Your task to perform on an android device: What's the weather today? Image 0: 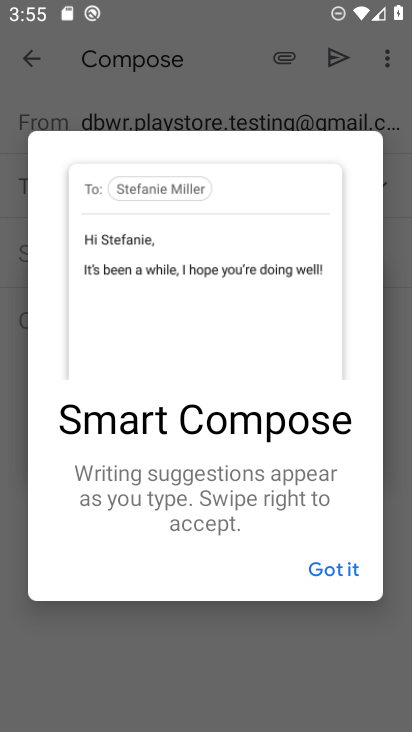
Step 0: press back button
Your task to perform on an android device: What's the weather today? Image 1: 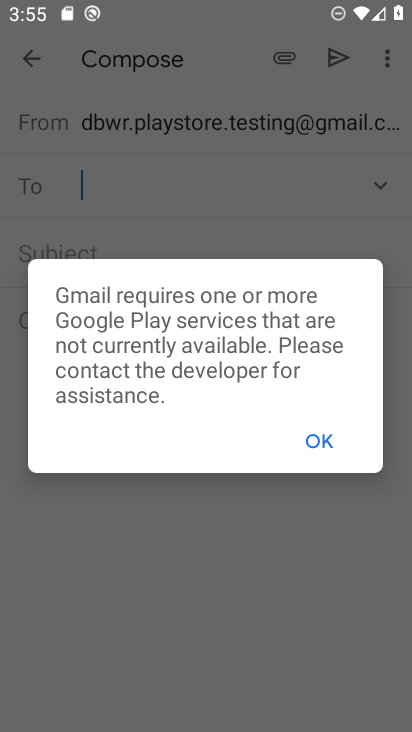
Step 1: press home button
Your task to perform on an android device: What's the weather today? Image 2: 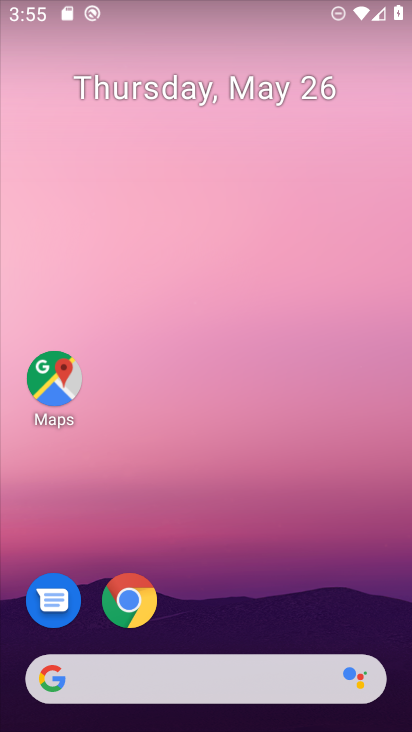
Step 2: drag from (269, 581) to (191, 85)
Your task to perform on an android device: What's the weather today? Image 3: 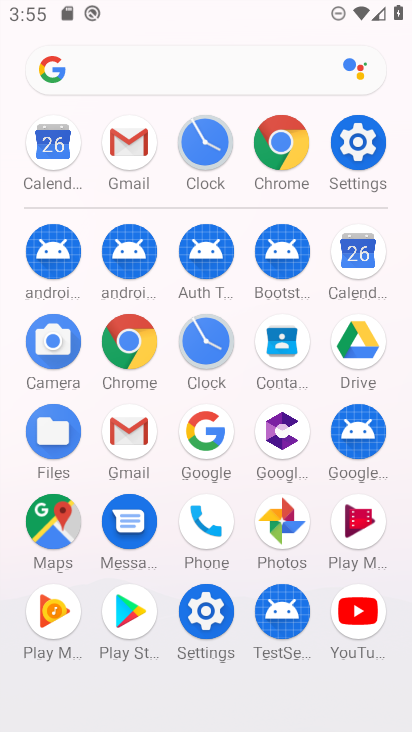
Step 3: click (359, 141)
Your task to perform on an android device: What's the weather today? Image 4: 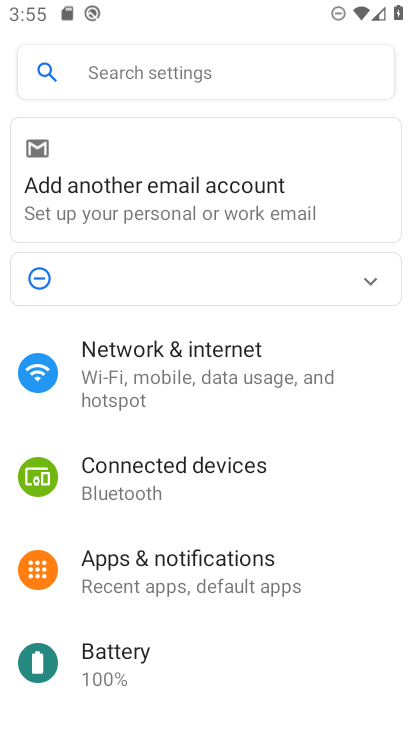
Step 4: drag from (256, 616) to (256, 230)
Your task to perform on an android device: What's the weather today? Image 5: 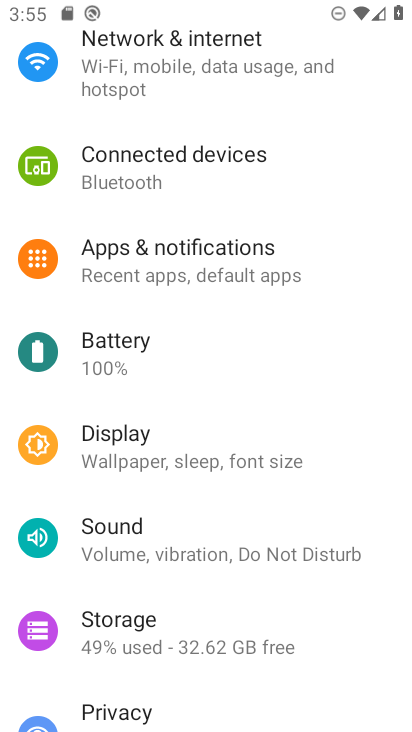
Step 5: drag from (267, 564) to (278, 151)
Your task to perform on an android device: What's the weather today? Image 6: 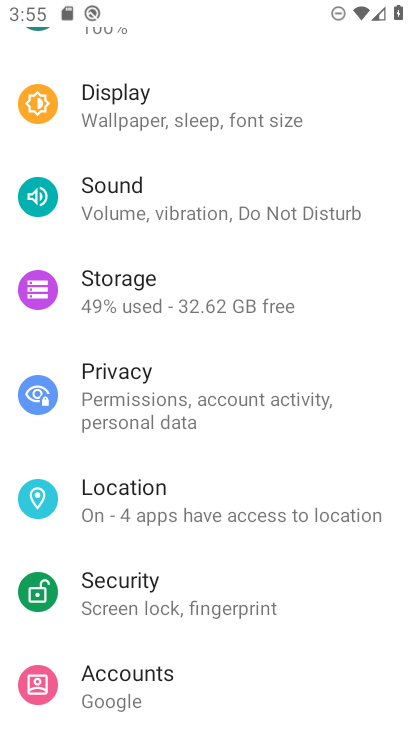
Step 6: drag from (196, 636) to (233, 229)
Your task to perform on an android device: What's the weather today? Image 7: 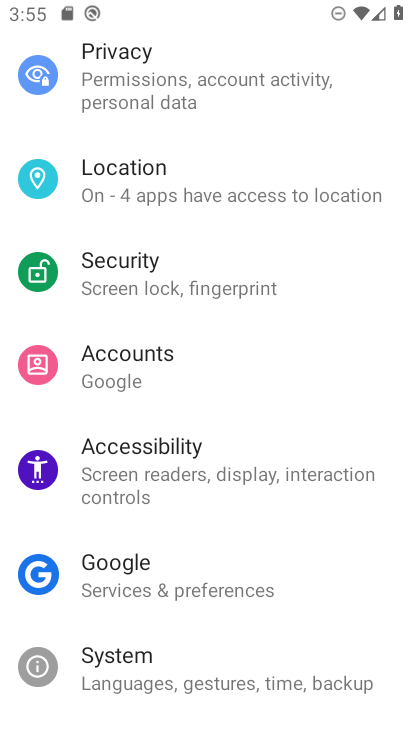
Step 7: drag from (224, 603) to (255, 198)
Your task to perform on an android device: What's the weather today? Image 8: 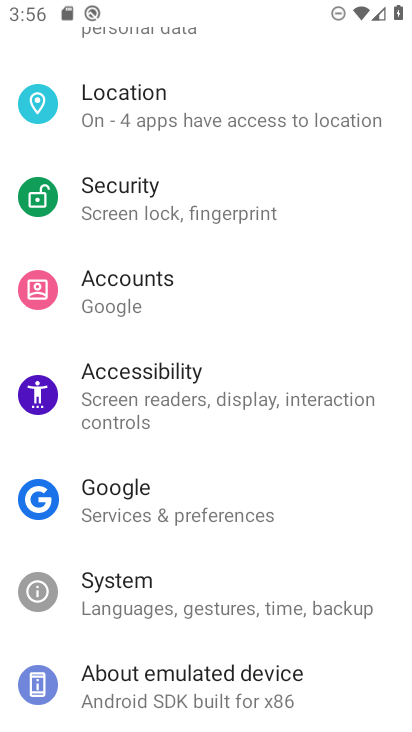
Step 8: drag from (288, 192) to (271, 661)
Your task to perform on an android device: What's the weather today? Image 9: 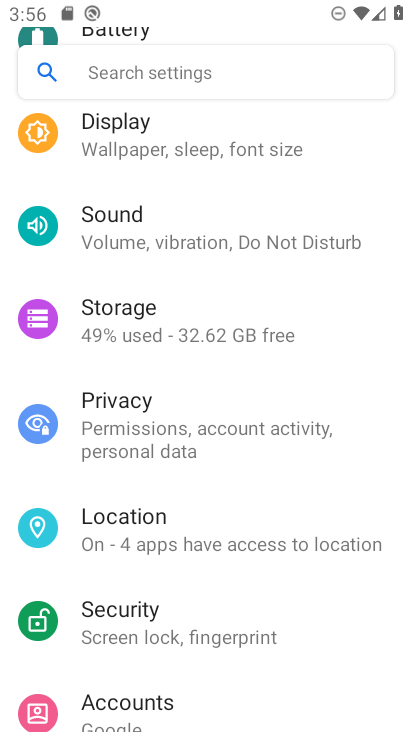
Step 9: press back button
Your task to perform on an android device: What's the weather today? Image 10: 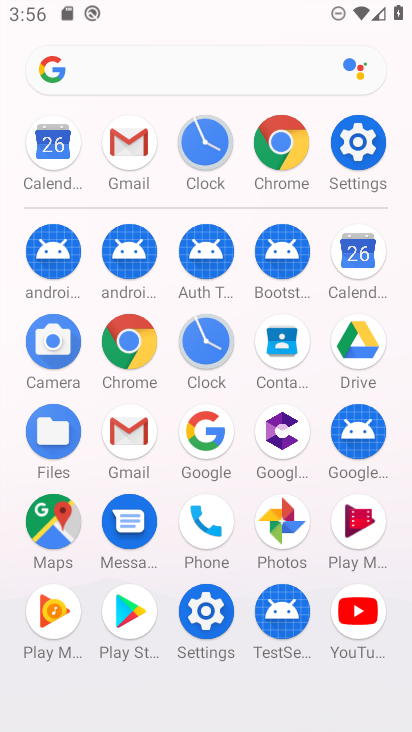
Step 10: press home button
Your task to perform on an android device: What's the weather today? Image 11: 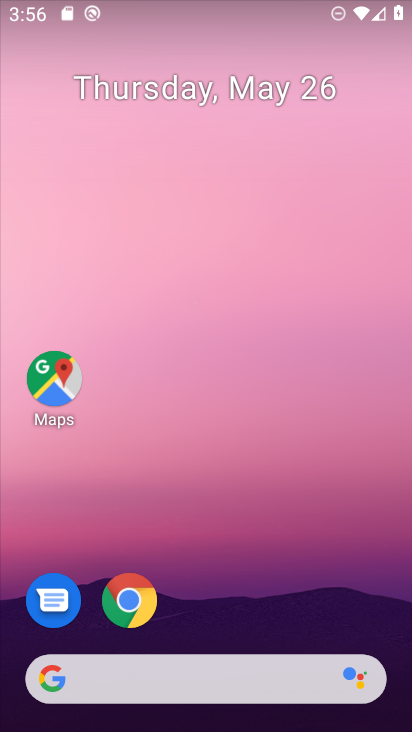
Step 11: drag from (237, 552) to (222, 45)
Your task to perform on an android device: What's the weather today? Image 12: 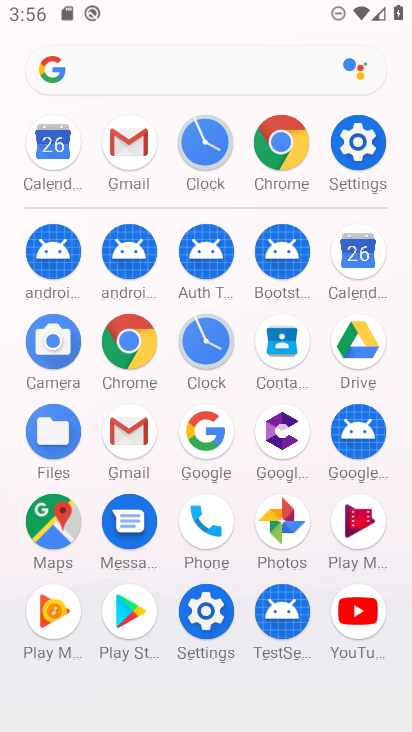
Step 12: click (126, 334)
Your task to perform on an android device: What's the weather today? Image 13: 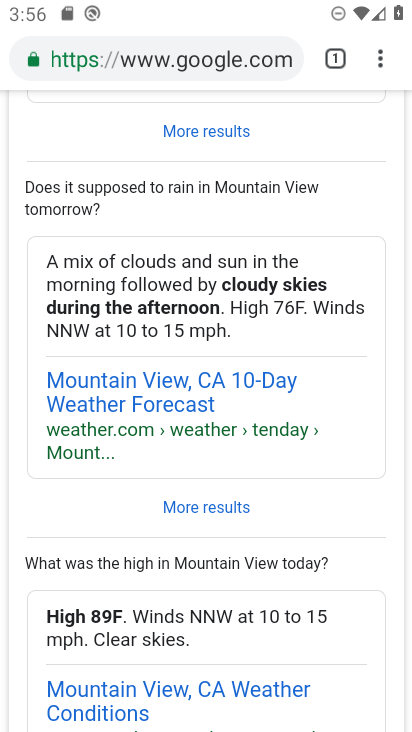
Step 13: click (134, 54)
Your task to perform on an android device: What's the weather today? Image 14: 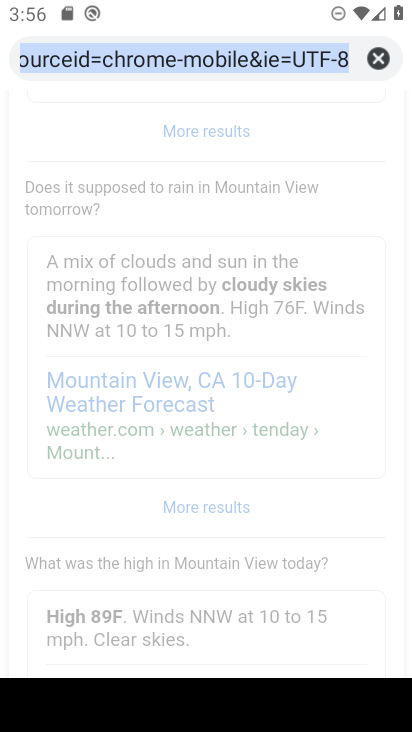
Step 14: click (374, 50)
Your task to perform on an android device: What's the weather today? Image 15: 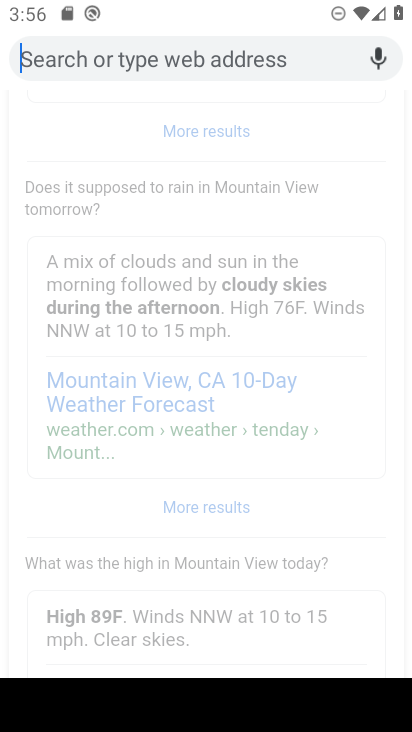
Step 15: type "What's the weather today?"
Your task to perform on an android device: What's the weather today? Image 16: 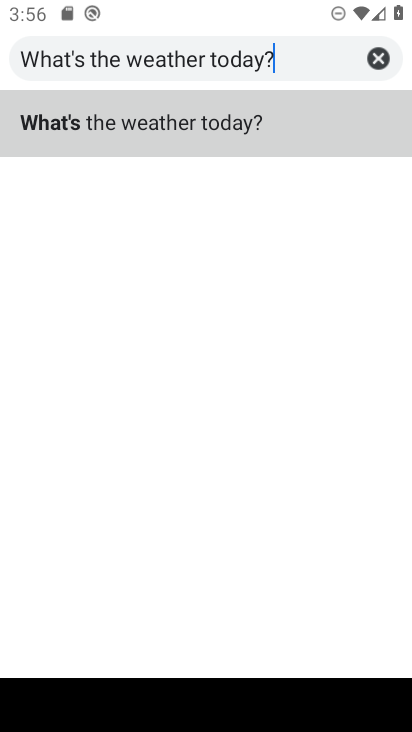
Step 16: type ""
Your task to perform on an android device: What's the weather today? Image 17: 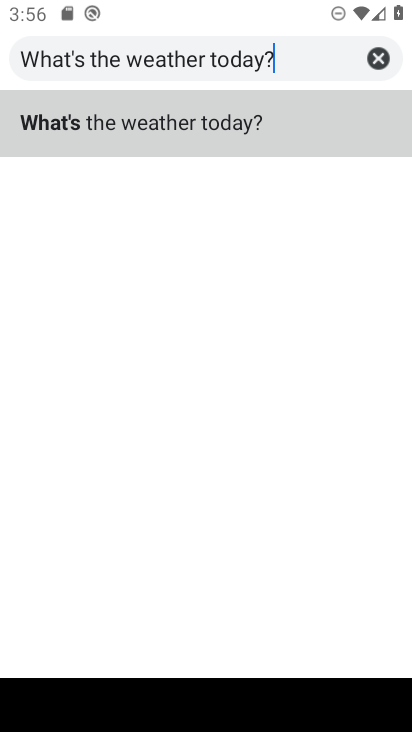
Step 17: click (197, 124)
Your task to perform on an android device: What's the weather today? Image 18: 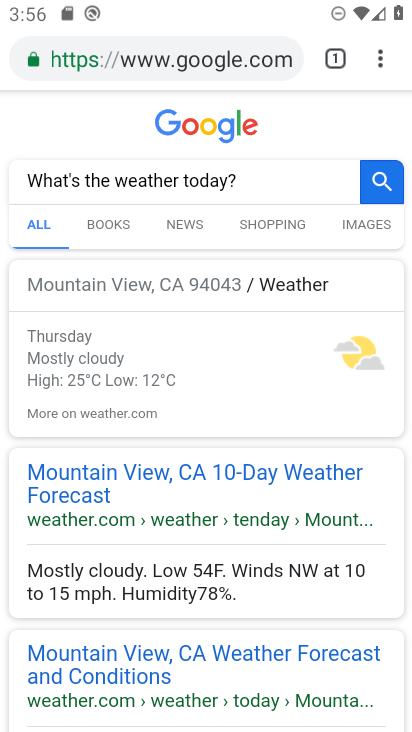
Step 18: task complete